Your task to perform on an android device: change notification settings in the gmail app Image 0: 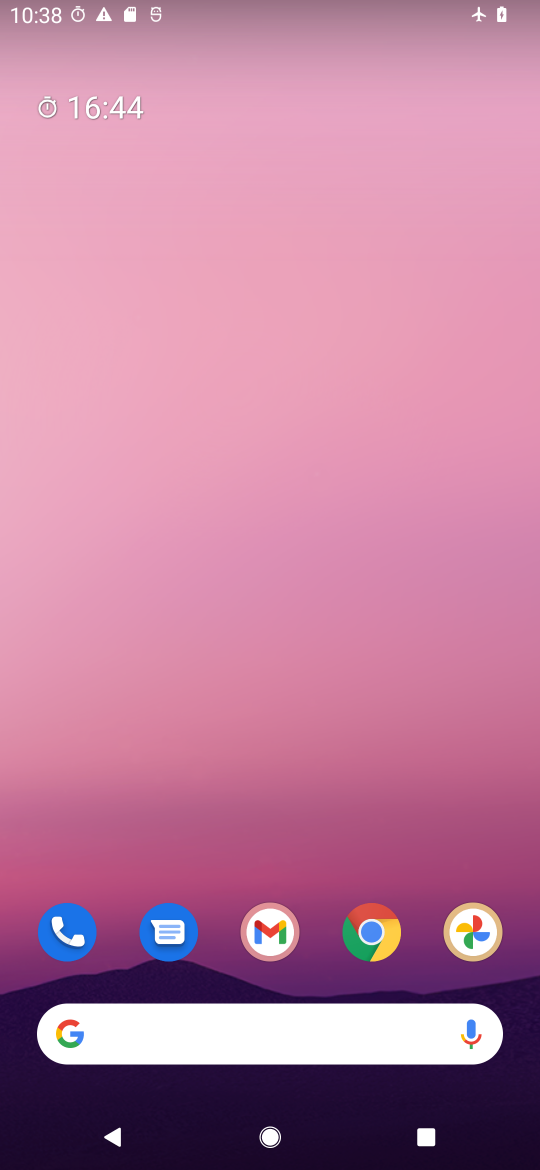
Step 0: click (284, 926)
Your task to perform on an android device: change notification settings in the gmail app Image 1: 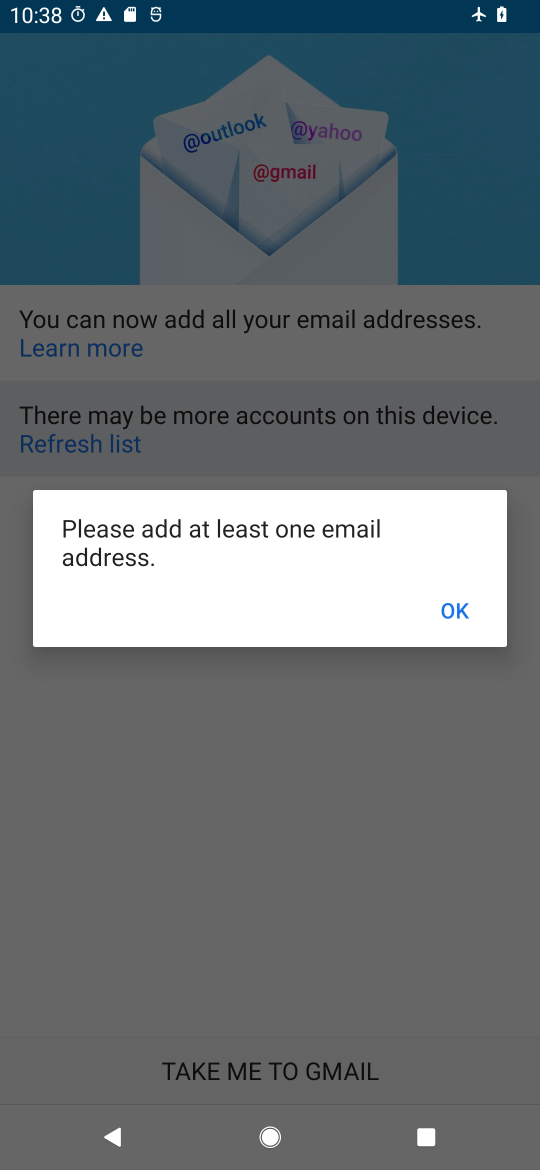
Step 1: click (463, 604)
Your task to perform on an android device: change notification settings in the gmail app Image 2: 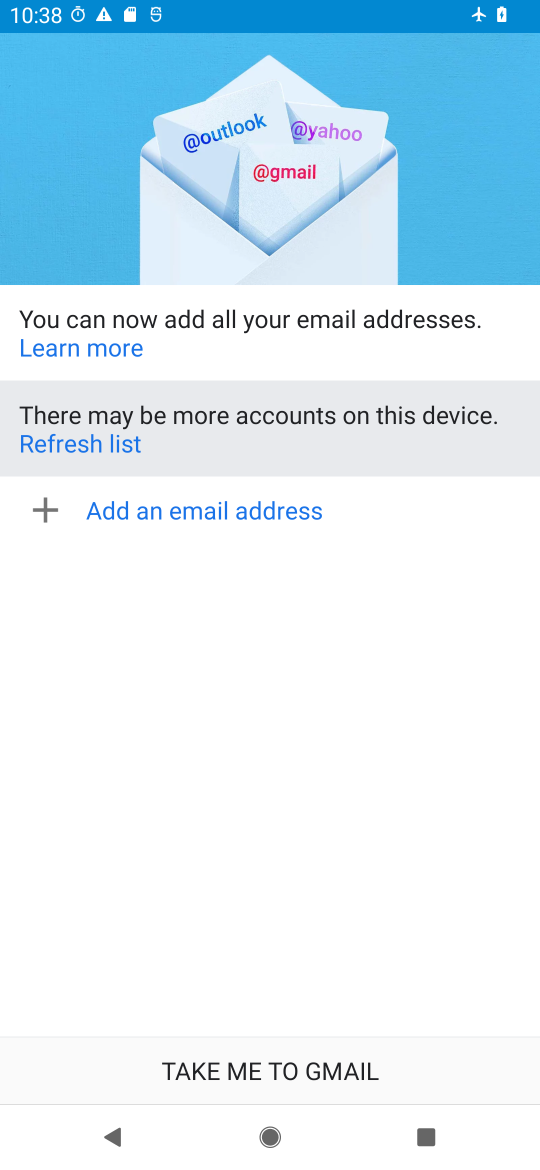
Step 2: click (346, 1055)
Your task to perform on an android device: change notification settings in the gmail app Image 3: 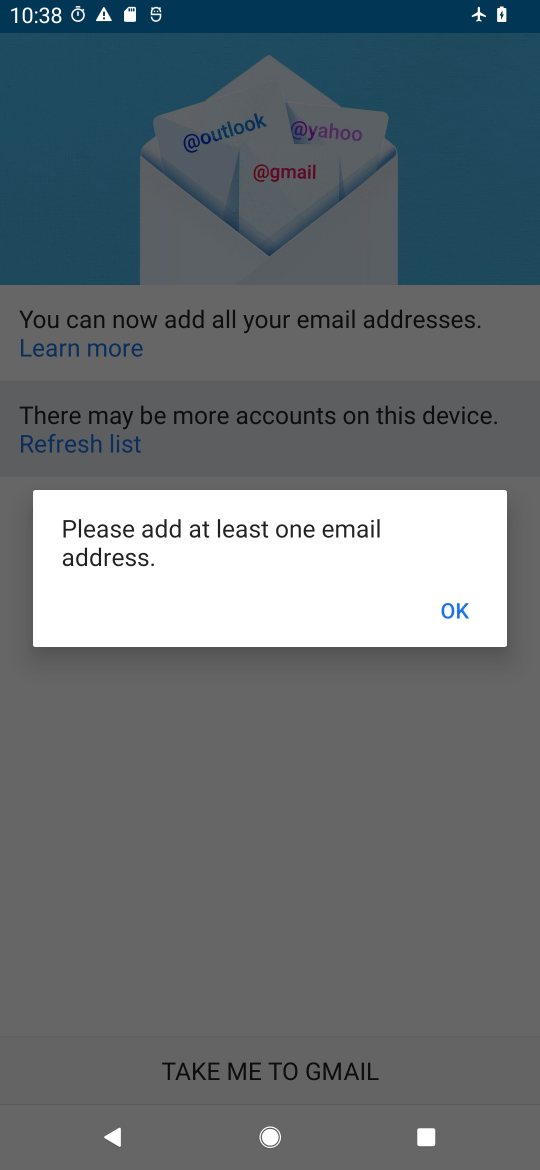
Step 3: task complete